Your task to perform on an android device: turn off javascript in the chrome app Image 0: 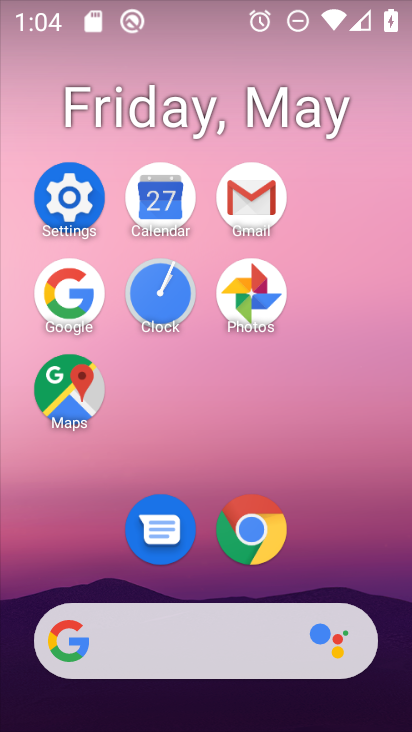
Step 0: click (255, 542)
Your task to perform on an android device: turn off javascript in the chrome app Image 1: 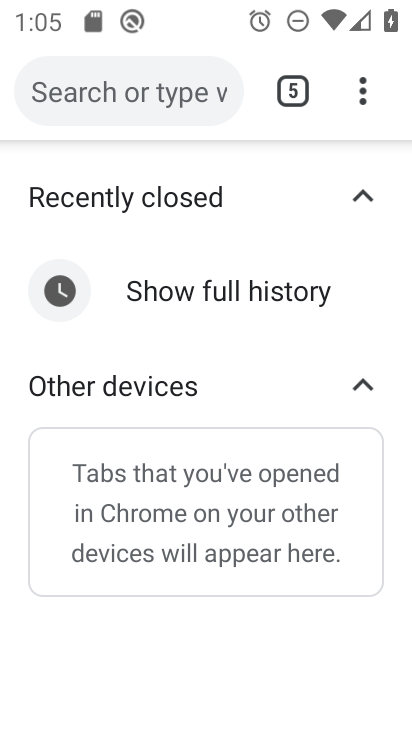
Step 1: click (373, 81)
Your task to perform on an android device: turn off javascript in the chrome app Image 2: 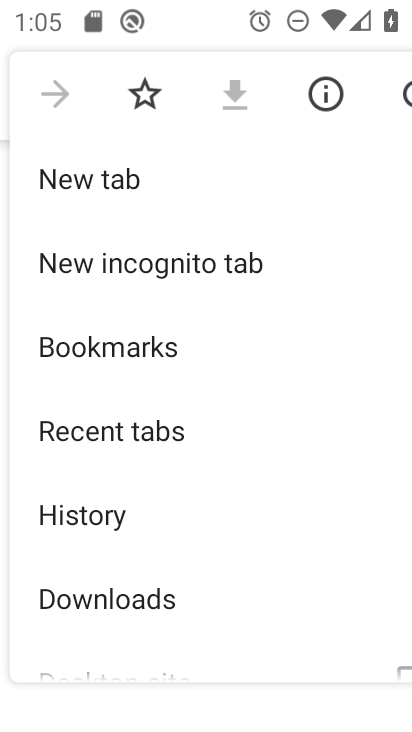
Step 2: drag from (225, 470) to (277, 176)
Your task to perform on an android device: turn off javascript in the chrome app Image 3: 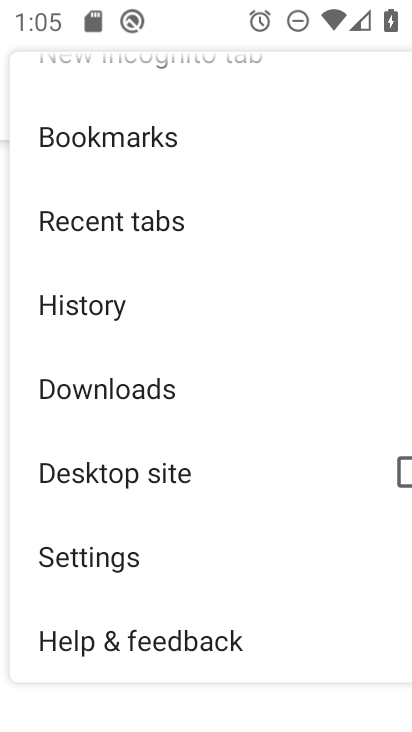
Step 3: click (123, 558)
Your task to perform on an android device: turn off javascript in the chrome app Image 4: 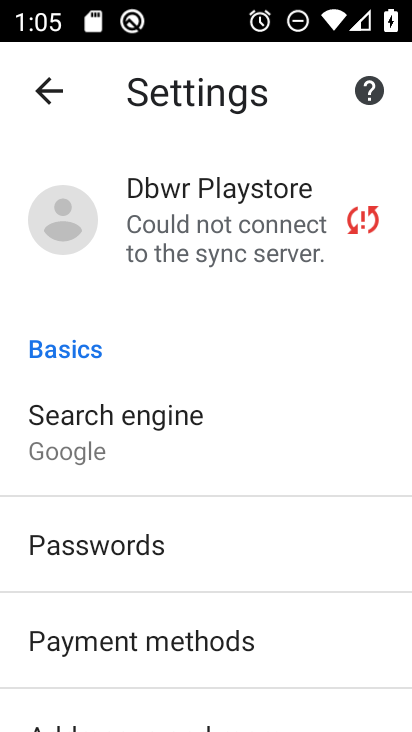
Step 4: drag from (235, 561) to (276, 215)
Your task to perform on an android device: turn off javascript in the chrome app Image 5: 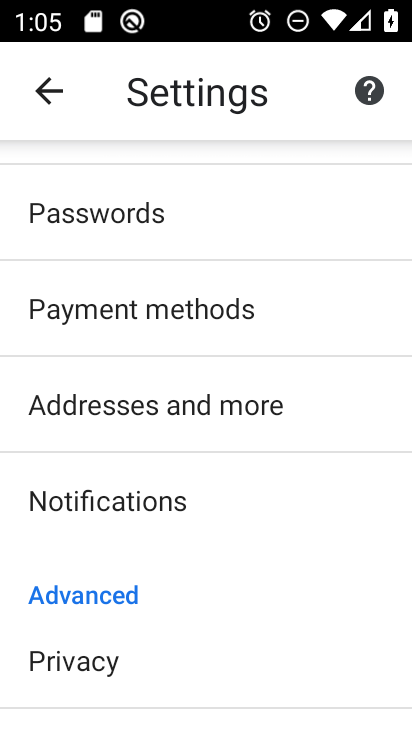
Step 5: drag from (242, 556) to (285, 187)
Your task to perform on an android device: turn off javascript in the chrome app Image 6: 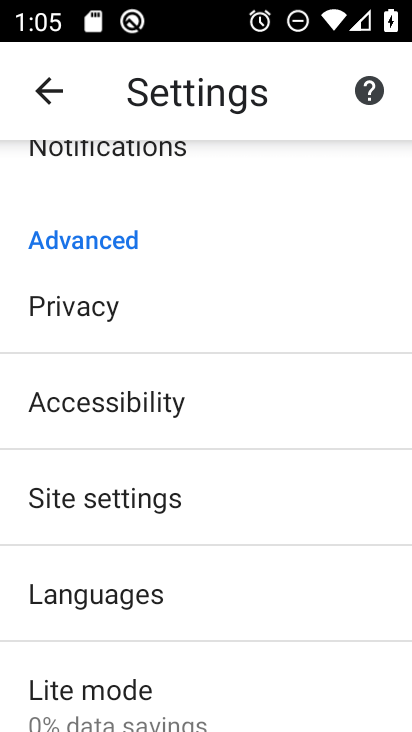
Step 6: click (196, 510)
Your task to perform on an android device: turn off javascript in the chrome app Image 7: 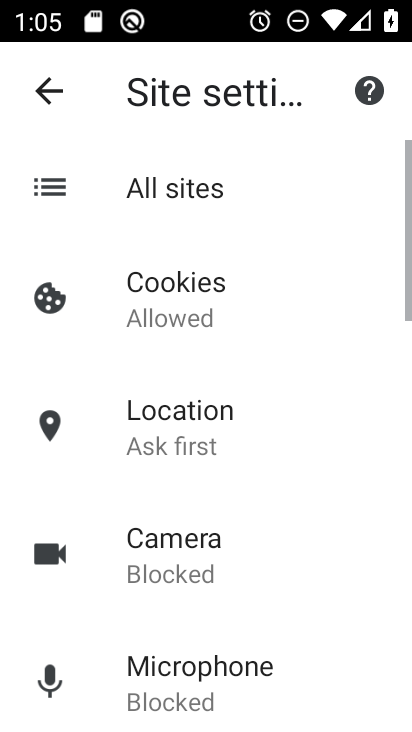
Step 7: drag from (196, 493) to (226, 191)
Your task to perform on an android device: turn off javascript in the chrome app Image 8: 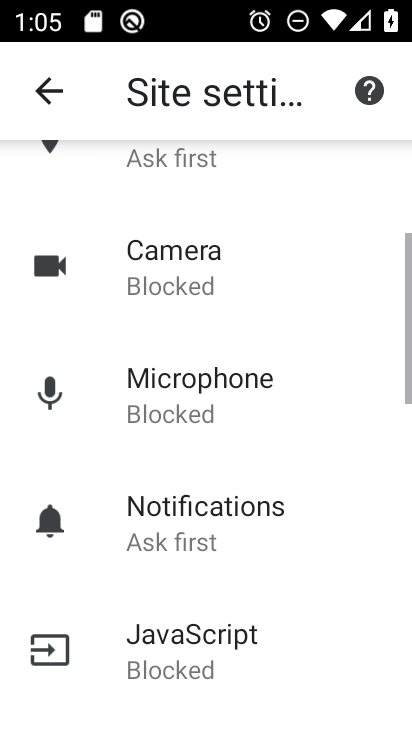
Step 8: click (217, 639)
Your task to perform on an android device: turn off javascript in the chrome app Image 9: 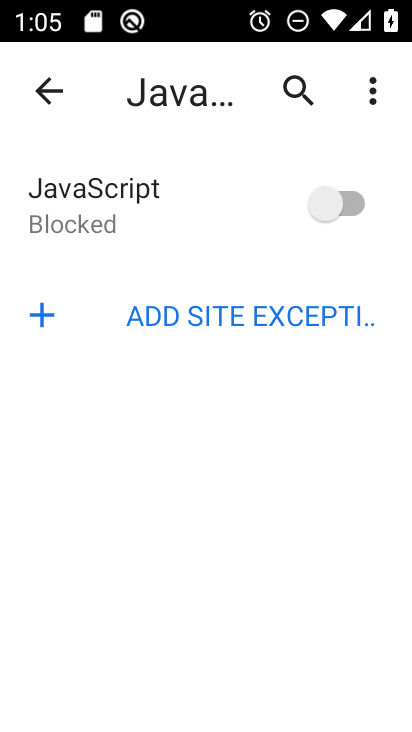
Step 9: task complete